Your task to perform on an android device: Go to network settings Image 0: 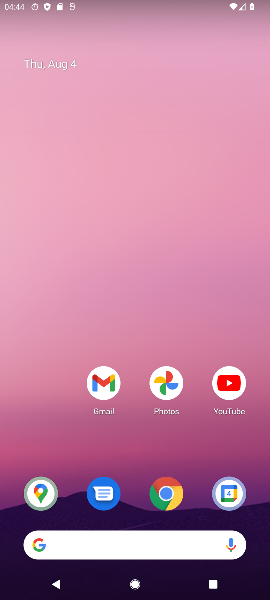
Step 0: click (53, 582)
Your task to perform on an android device: Go to network settings Image 1: 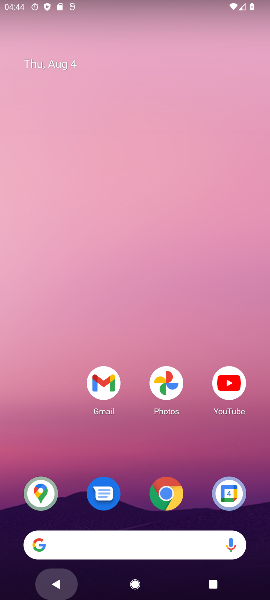
Step 1: drag from (50, 500) to (139, 0)
Your task to perform on an android device: Go to network settings Image 2: 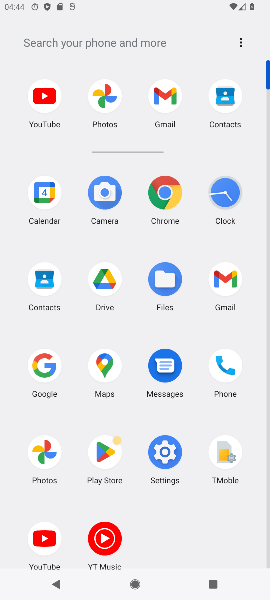
Step 2: click (161, 448)
Your task to perform on an android device: Go to network settings Image 3: 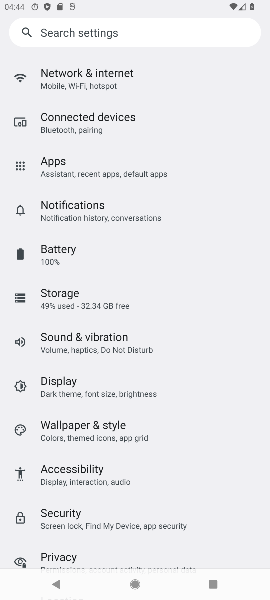
Step 3: click (115, 83)
Your task to perform on an android device: Go to network settings Image 4: 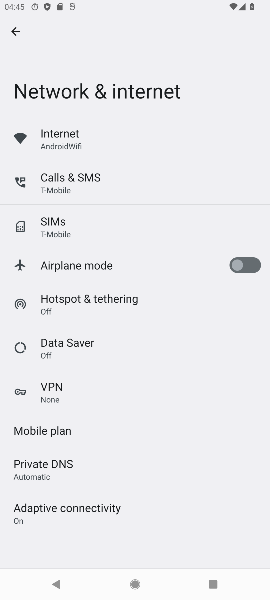
Step 4: click (63, 136)
Your task to perform on an android device: Go to network settings Image 5: 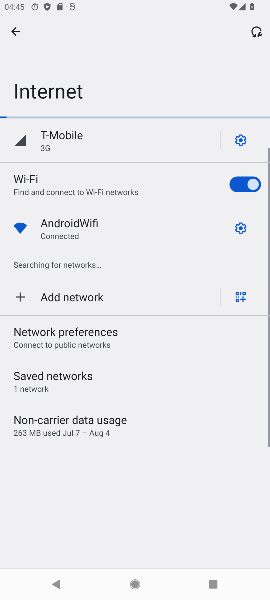
Step 5: click (67, 341)
Your task to perform on an android device: Go to network settings Image 6: 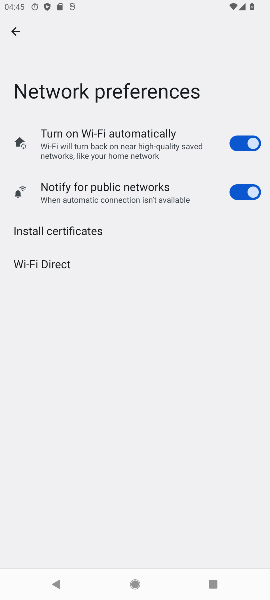
Step 6: task complete